Your task to perform on an android device: Go to Amazon Image 0: 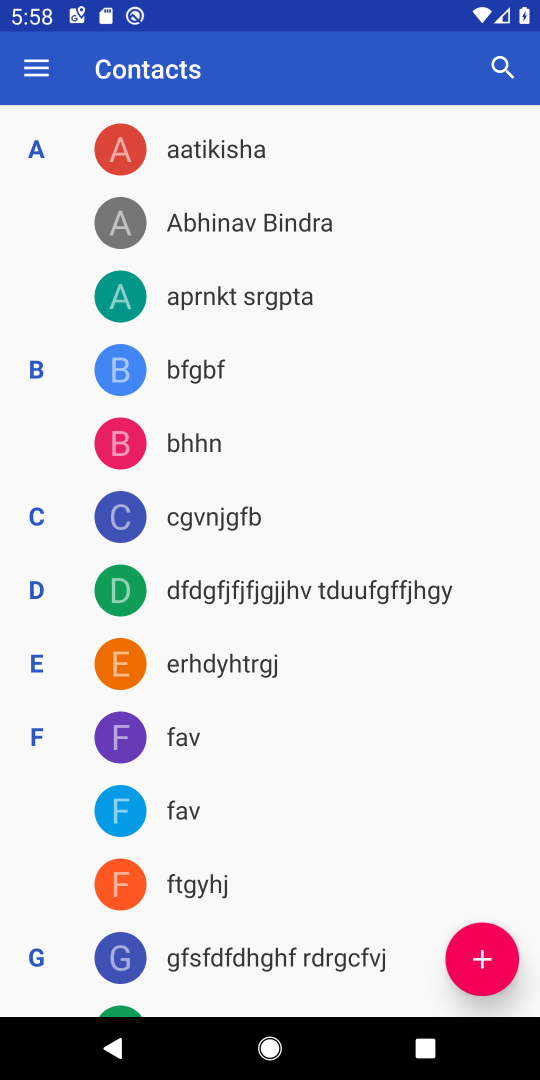
Step 0: press home button
Your task to perform on an android device: Go to Amazon Image 1: 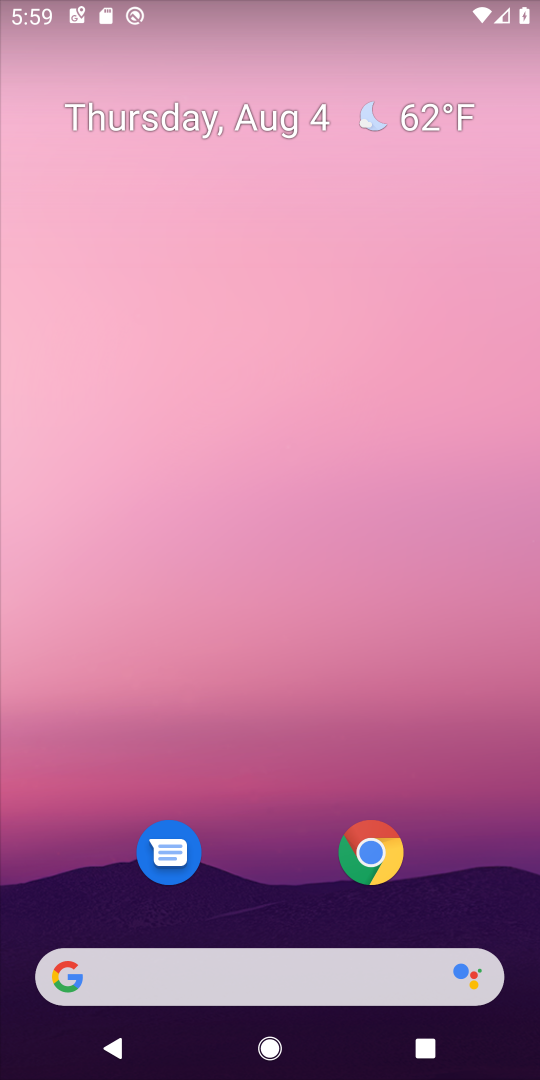
Step 1: click (376, 861)
Your task to perform on an android device: Go to Amazon Image 2: 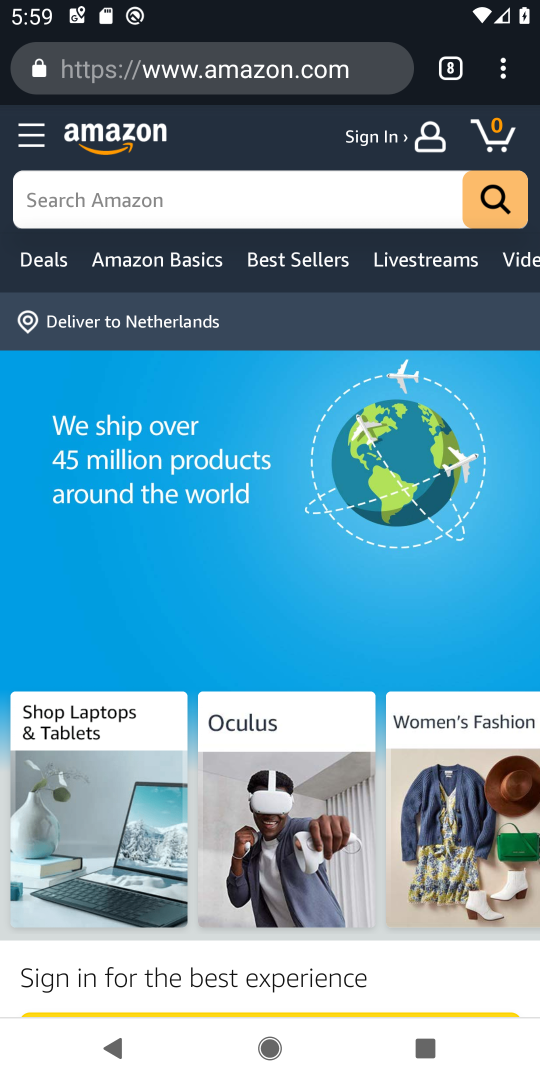
Step 2: task complete